Your task to perform on an android device: Show the shopping cart on walmart.com. Image 0: 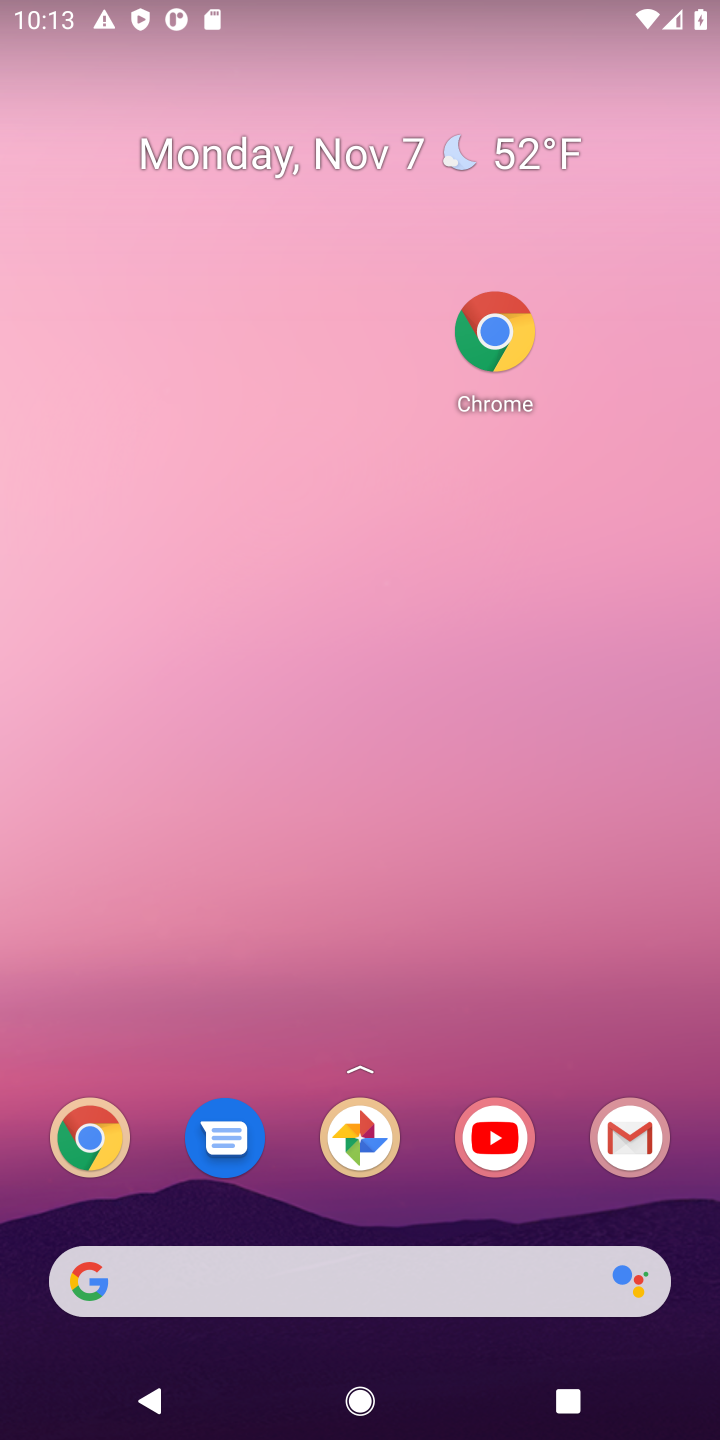
Step 0: drag from (426, 1206) to (213, 133)
Your task to perform on an android device: Show the shopping cart on walmart.com. Image 1: 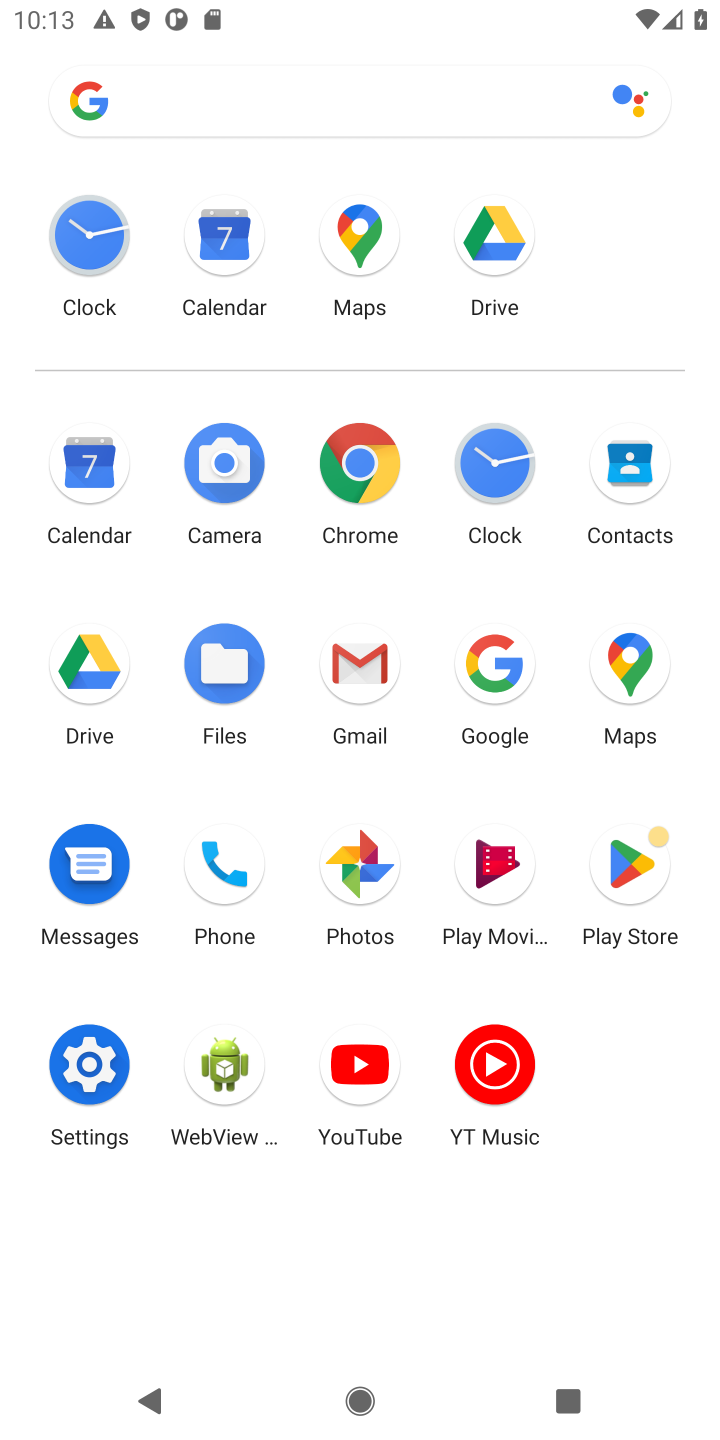
Step 1: click (351, 466)
Your task to perform on an android device: Show the shopping cart on walmart.com. Image 2: 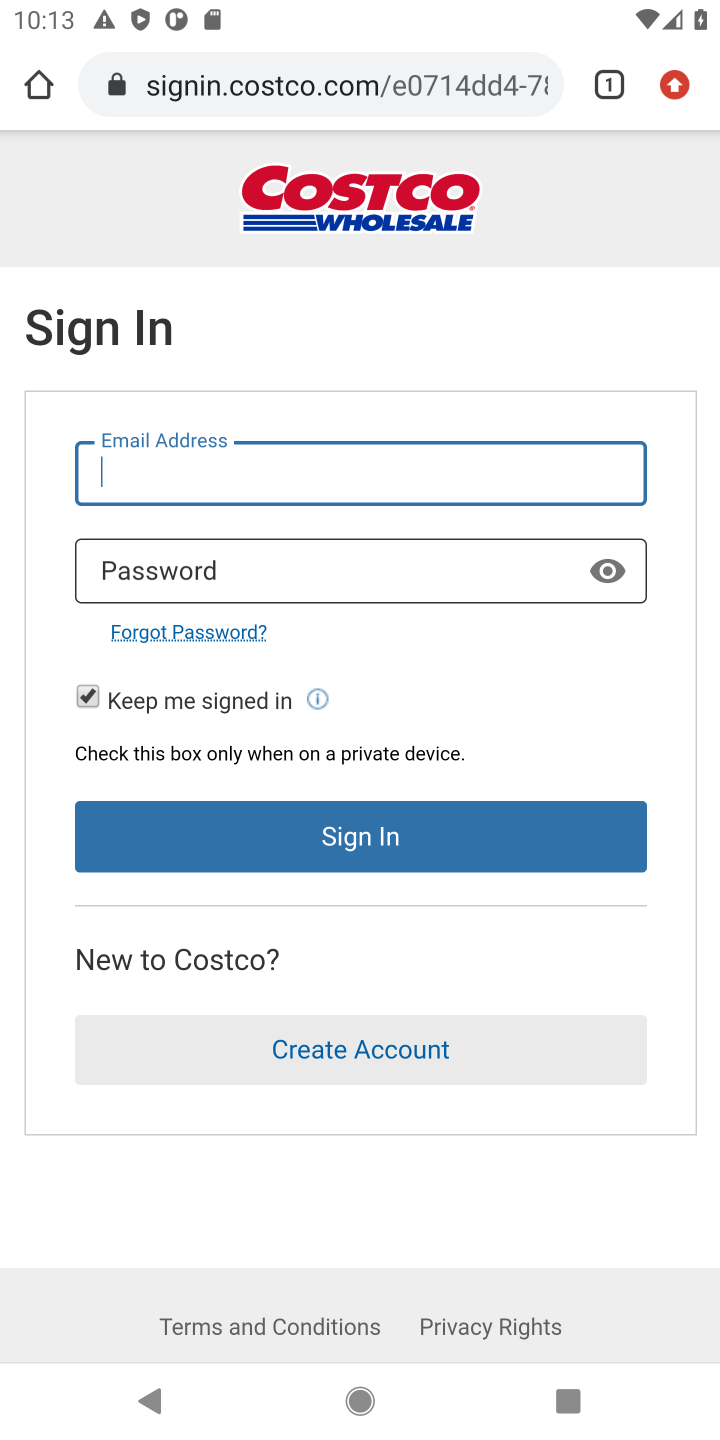
Step 2: click (314, 76)
Your task to perform on an android device: Show the shopping cart on walmart.com. Image 3: 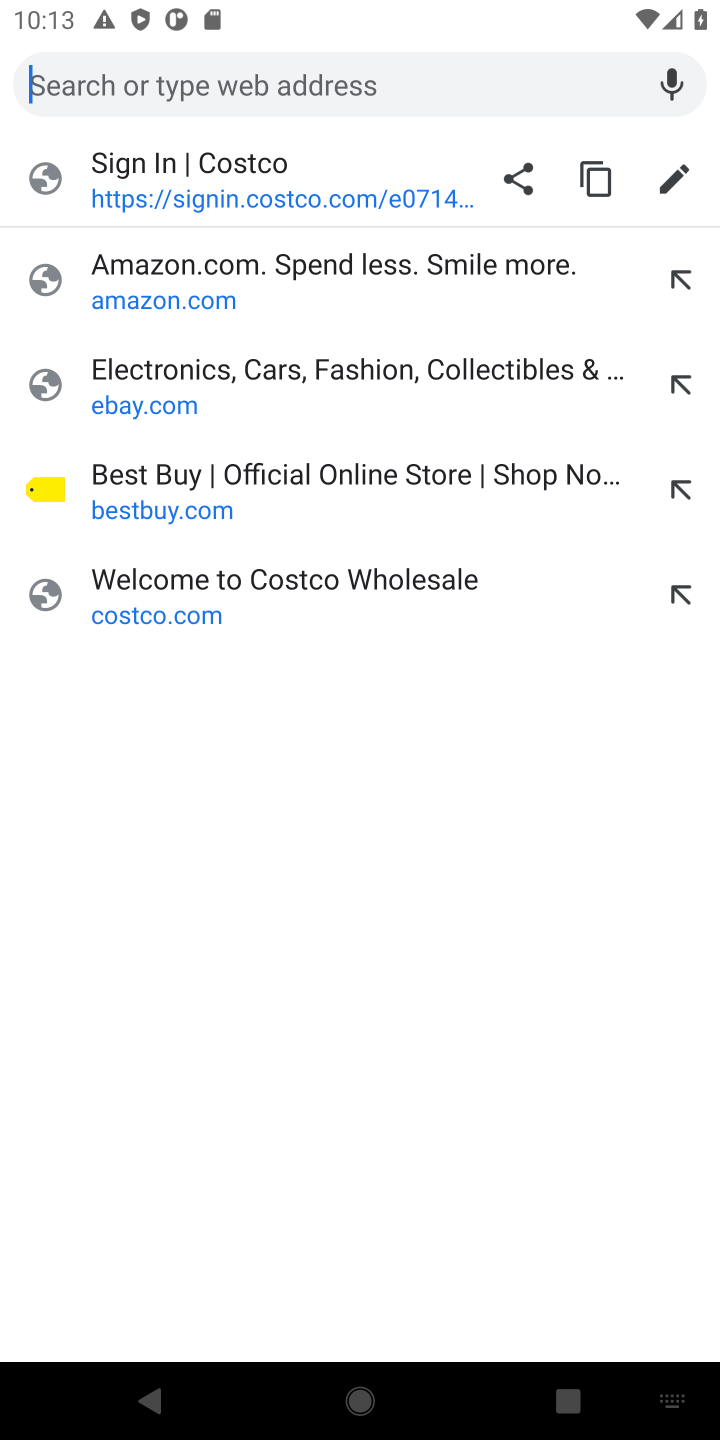
Step 3: type "walmart.com"
Your task to perform on an android device: Show the shopping cart on walmart.com. Image 4: 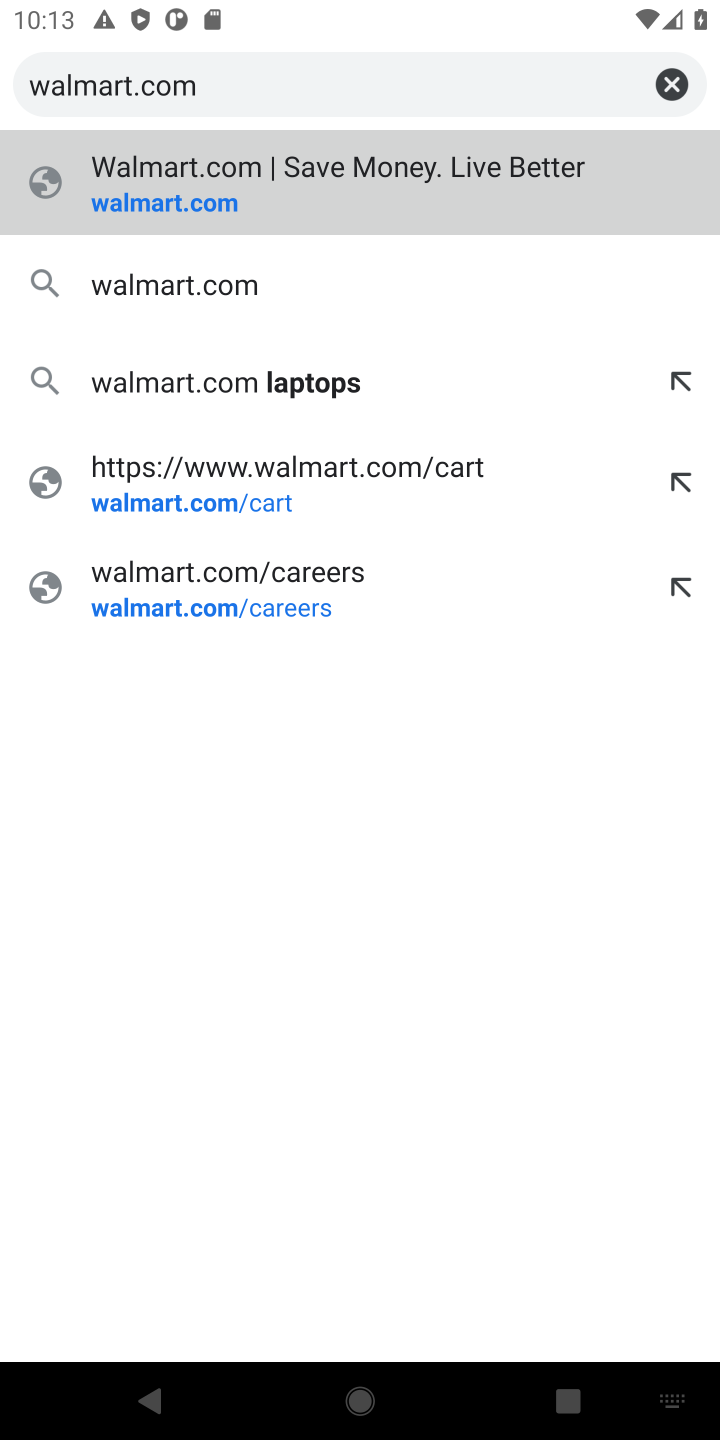
Step 4: press enter
Your task to perform on an android device: Show the shopping cart on walmart.com. Image 5: 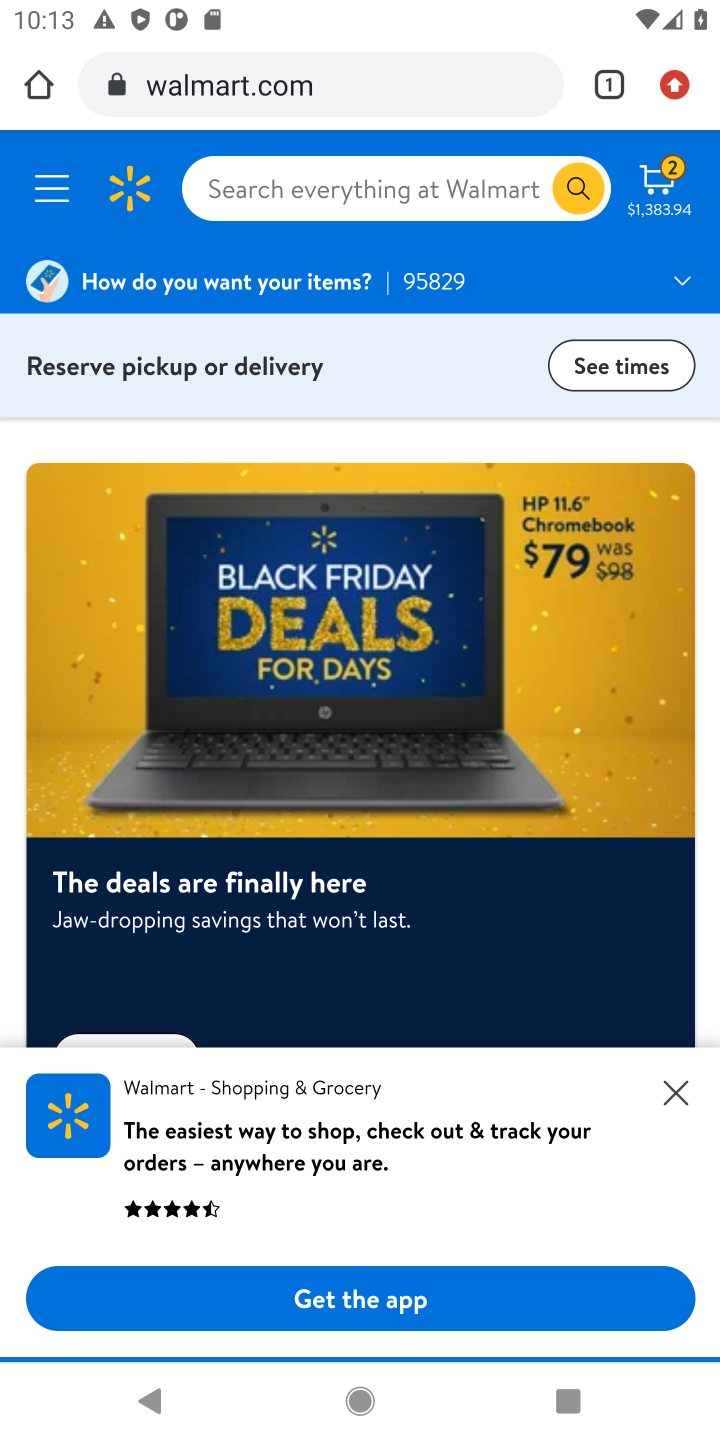
Step 5: click (648, 203)
Your task to perform on an android device: Show the shopping cart on walmart.com. Image 6: 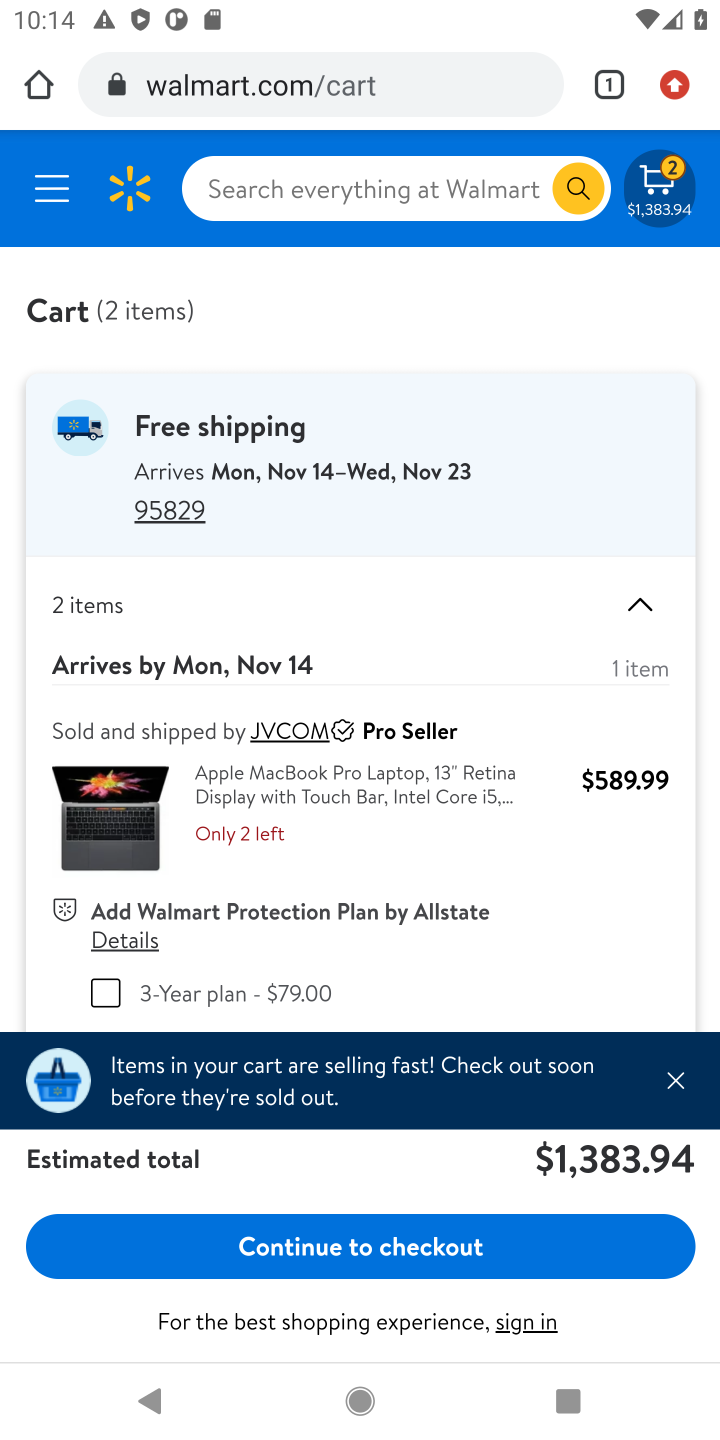
Step 6: task complete